Your task to perform on an android device: snooze an email in the gmail app Image 0: 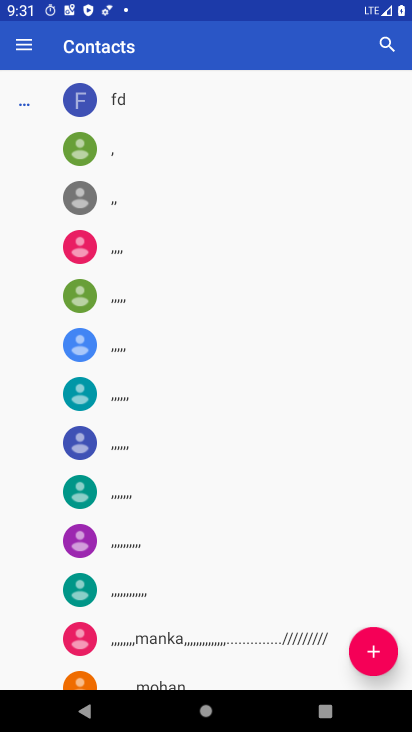
Step 0: press home button
Your task to perform on an android device: snooze an email in the gmail app Image 1: 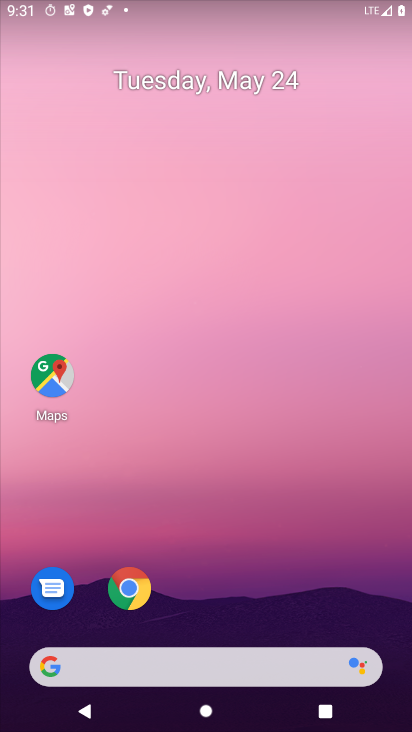
Step 1: drag from (180, 592) to (262, 4)
Your task to perform on an android device: snooze an email in the gmail app Image 2: 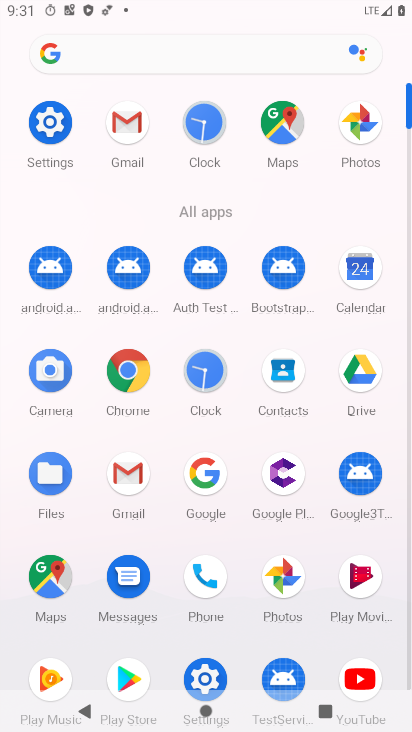
Step 2: click (137, 118)
Your task to perform on an android device: snooze an email in the gmail app Image 3: 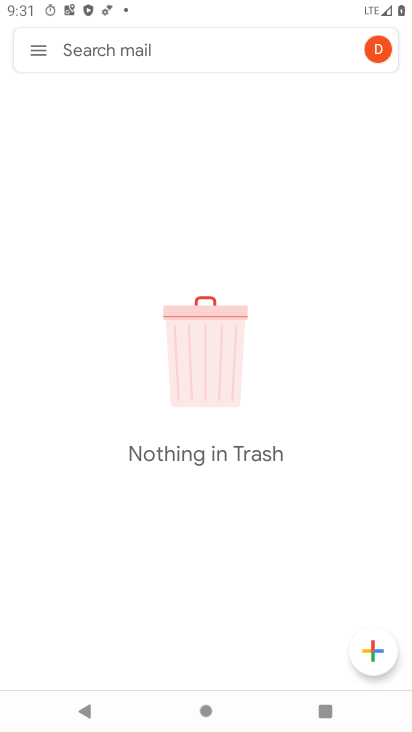
Step 3: click (33, 51)
Your task to perform on an android device: snooze an email in the gmail app Image 4: 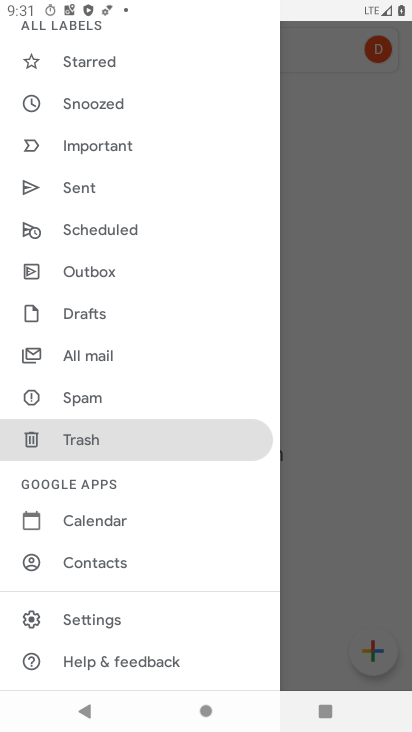
Step 4: click (90, 354)
Your task to perform on an android device: snooze an email in the gmail app Image 5: 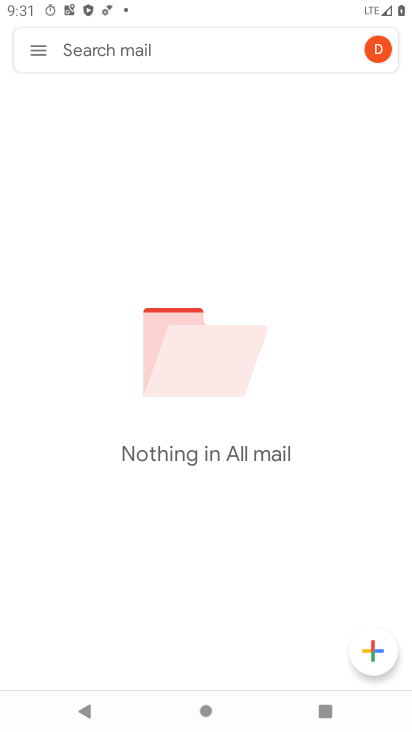
Step 5: task complete